Your task to perform on an android device: change the upload size in google photos Image 0: 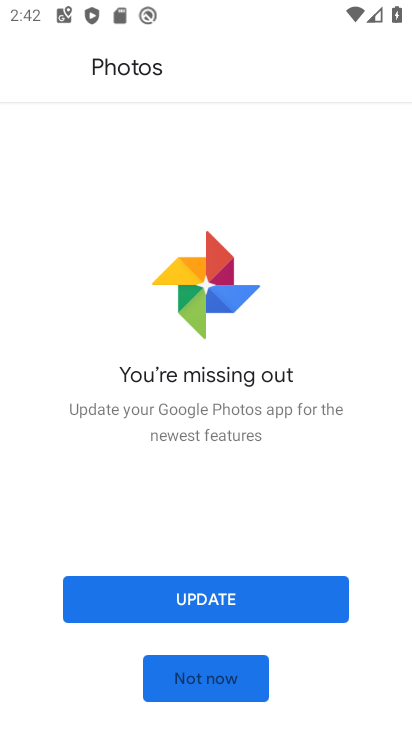
Step 0: press home button
Your task to perform on an android device: change the upload size in google photos Image 1: 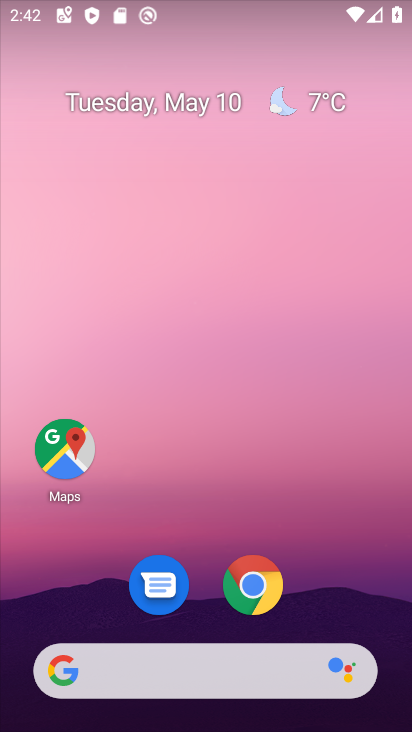
Step 1: drag from (256, 509) to (190, 70)
Your task to perform on an android device: change the upload size in google photos Image 2: 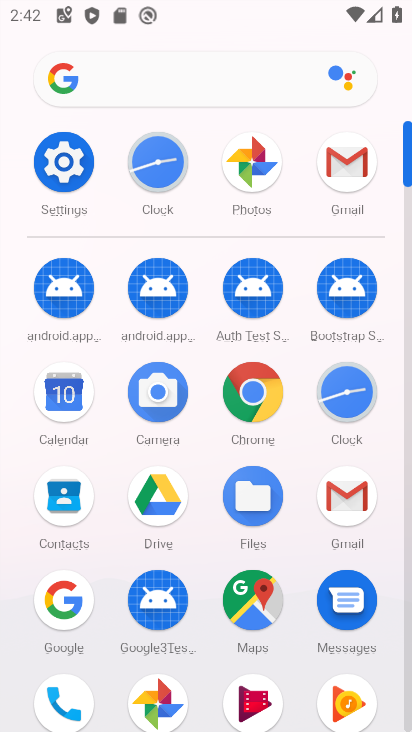
Step 2: click (241, 154)
Your task to perform on an android device: change the upload size in google photos Image 3: 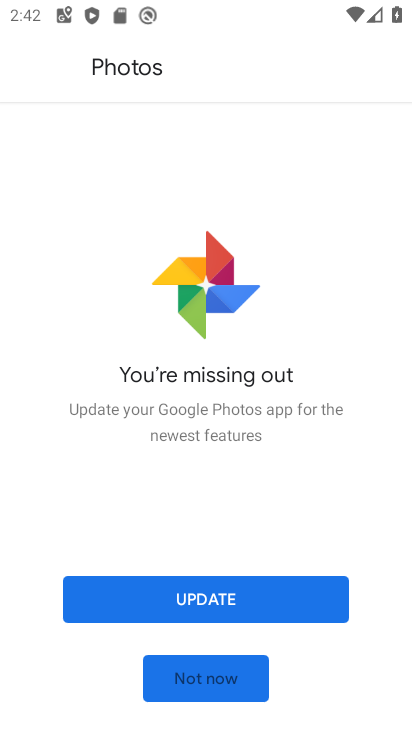
Step 3: click (242, 607)
Your task to perform on an android device: change the upload size in google photos Image 4: 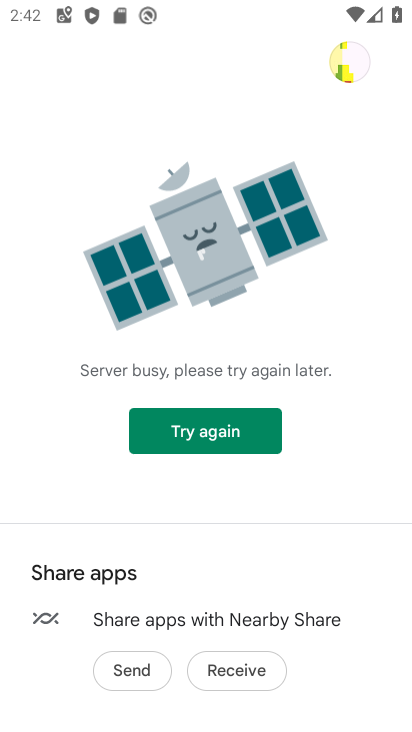
Step 4: click (263, 420)
Your task to perform on an android device: change the upload size in google photos Image 5: 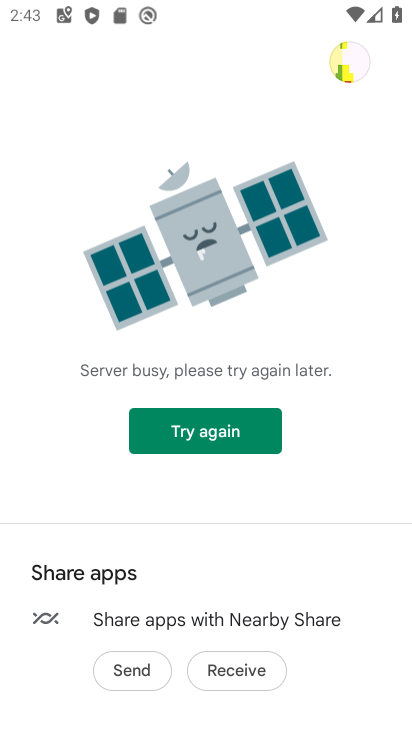
Step 5: click (251, 438)
Your task to perform on an android device: change the upload size in google photos Image 6: 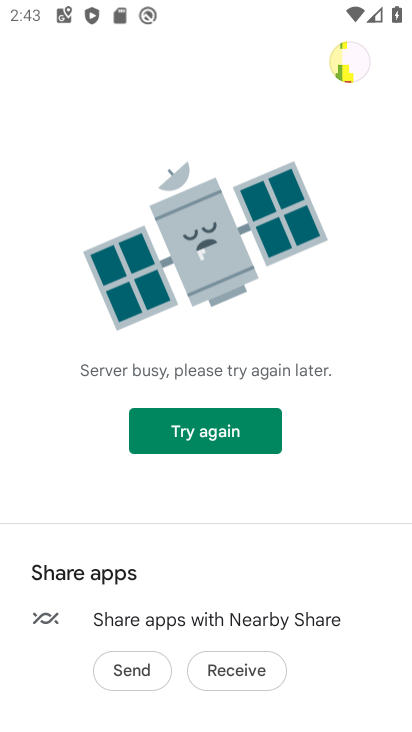
Step 6: click (257, 429)
Your task to perform on an android device: change the upload size in google photos Image 7: 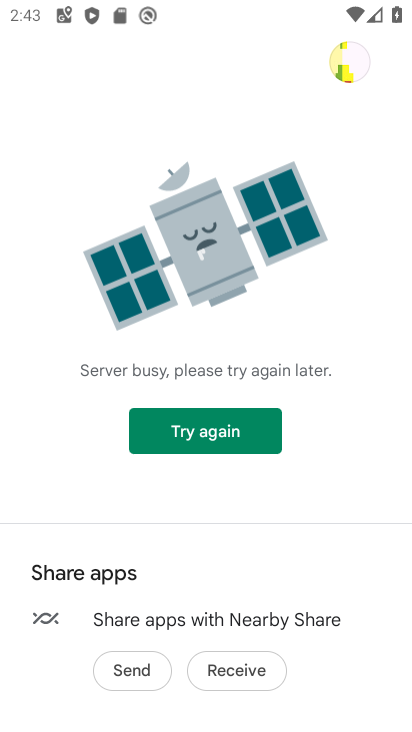
Step 7: click (249, 438)
Your task to perform on an android device: change the upload size in google photos Image 8: 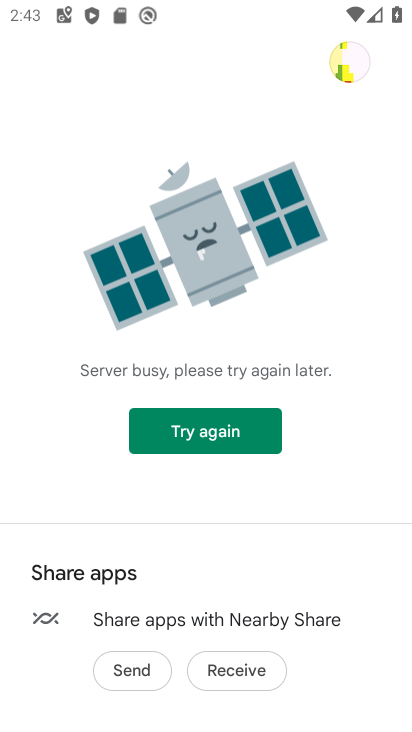
Step 8: task complete